Your task to perform on an android device: Go to Reddit.com Image 0: 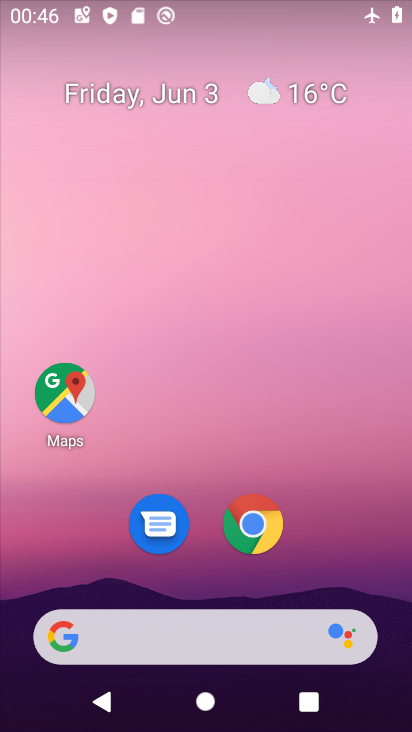
Step 0: click (261, 640)
Your task to perform on an android device: Go to Reddit.com Image 1: 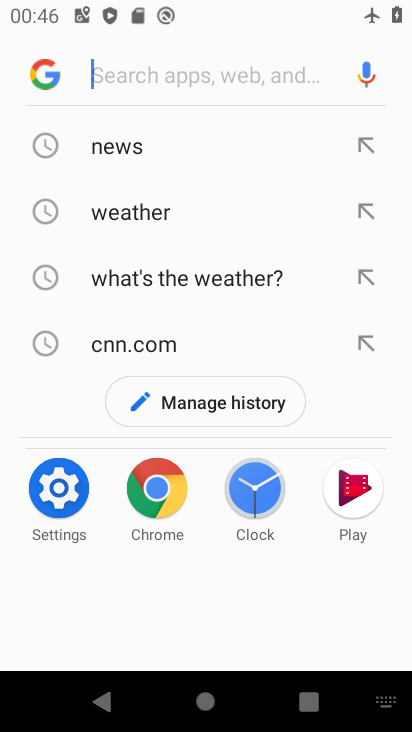
Step 1: type "reddit.com"
Your task to perform on an android device: Go to Reddit.com Image 2: 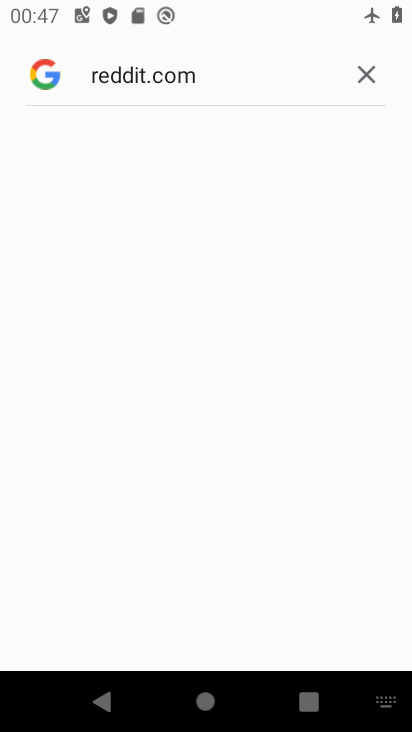
Step 2: task complete